Your task to perform on an android device: turn on notifications settings in the gmail app Image 0: 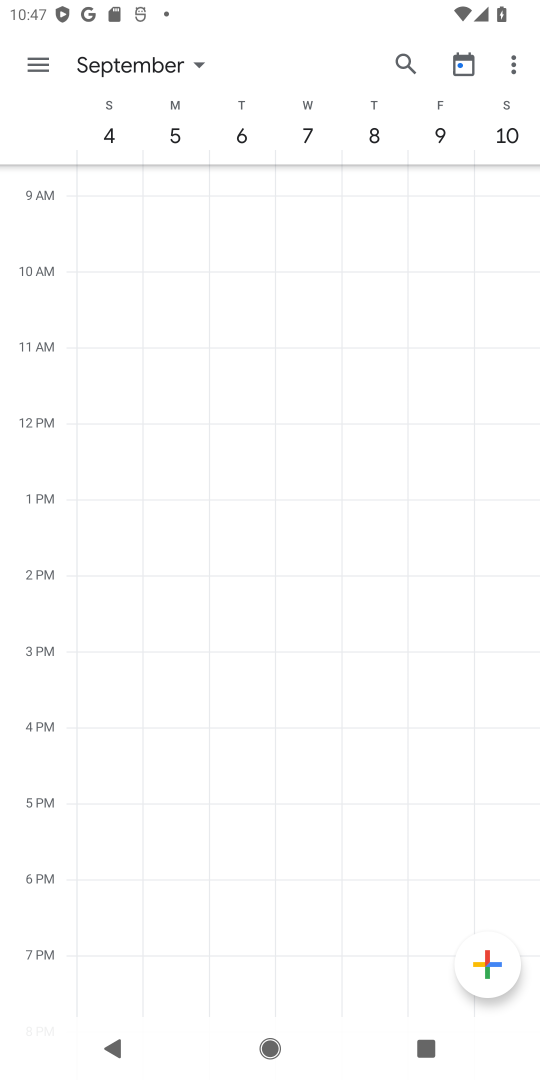
Step 0: press home button
Your task to perform on an android device: turn on notifications settings in the gmail app Image 1: 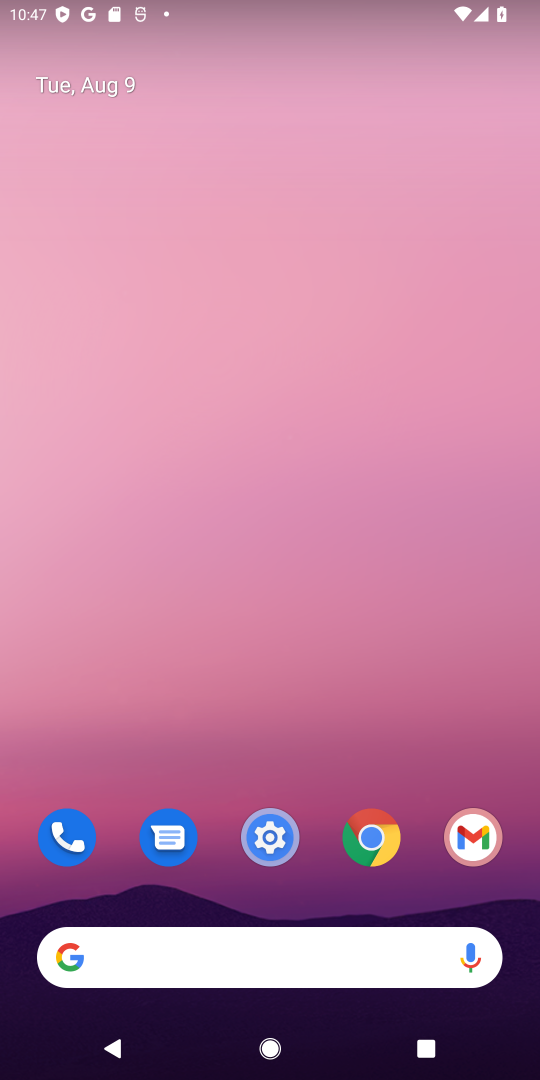
Step 1: drag from (301, 904) to (278, 280)
Your task to perform on an android device: turn on notifications settings in the gmail app Image 2: 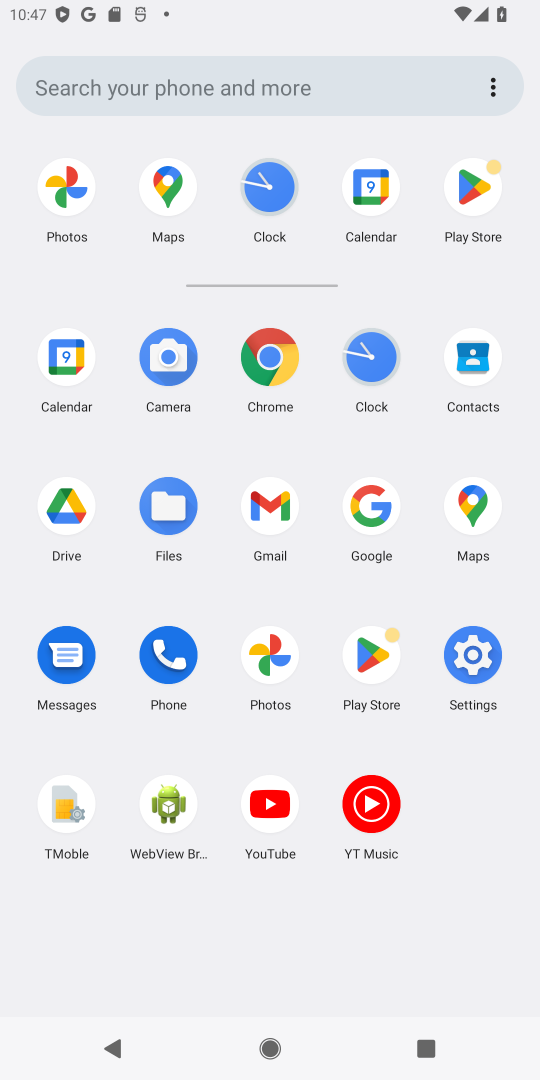
Step 2: click (264, 498)
Your task to perform on an android device: turn on notifications settings in the gmail app Image 3: 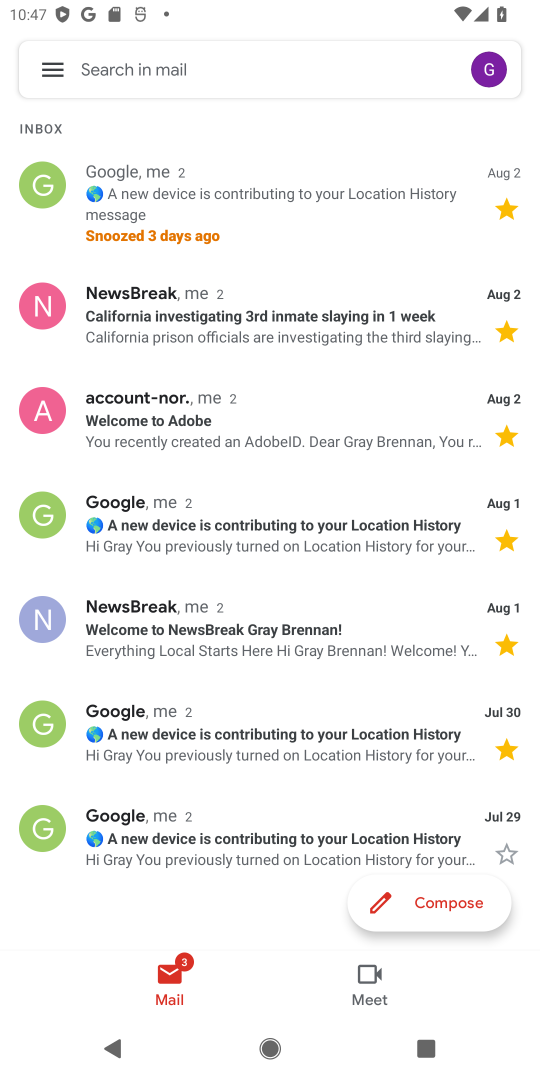
Step 3: click (57, 57)
Your task to perform on an android device: turn on notifications settings in the gmail app Image 4: 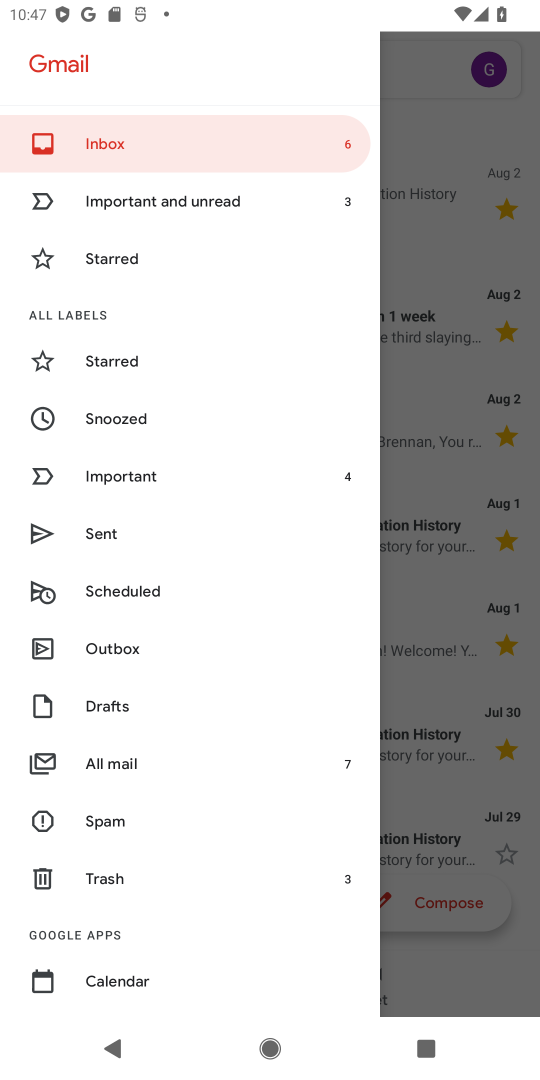
Step 4: drag from (108, 900) to (120, 603)
Your task to perform on an android device: turn on notifications settings in the gmail app Image 5: 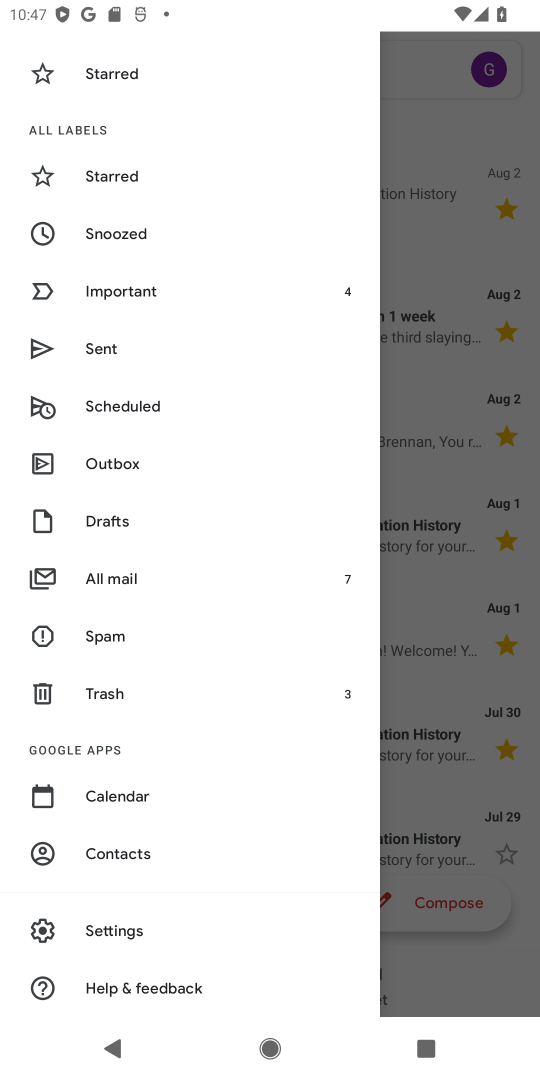
Step 5: click (92, 919)
Your task to perform on an android device: turn on notifications settings in the gmail app Image 6: 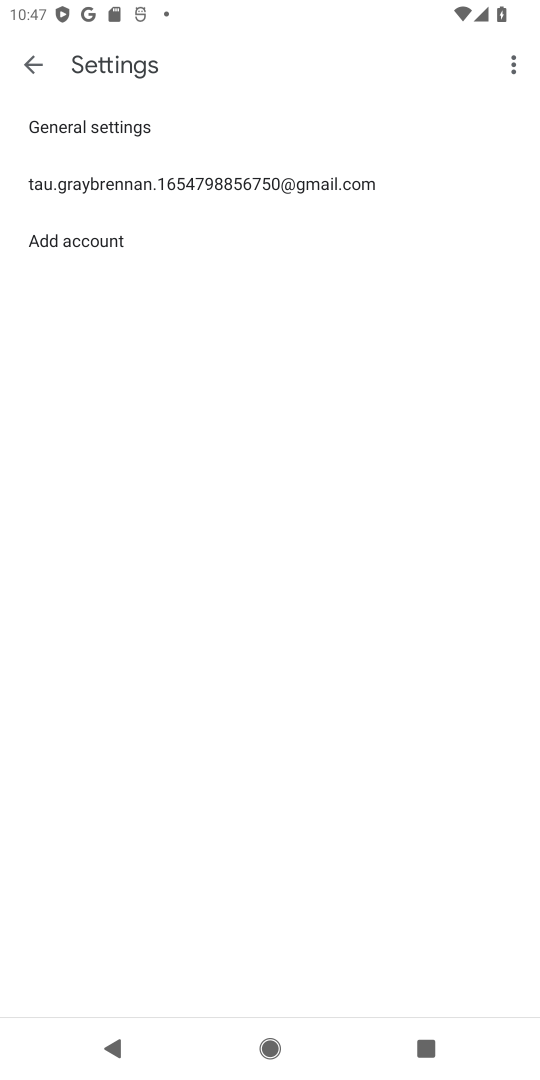
Step 6: click (223, 175)
Your task to perform on an android device: turn on notifications settings in the gmail app Image 7: 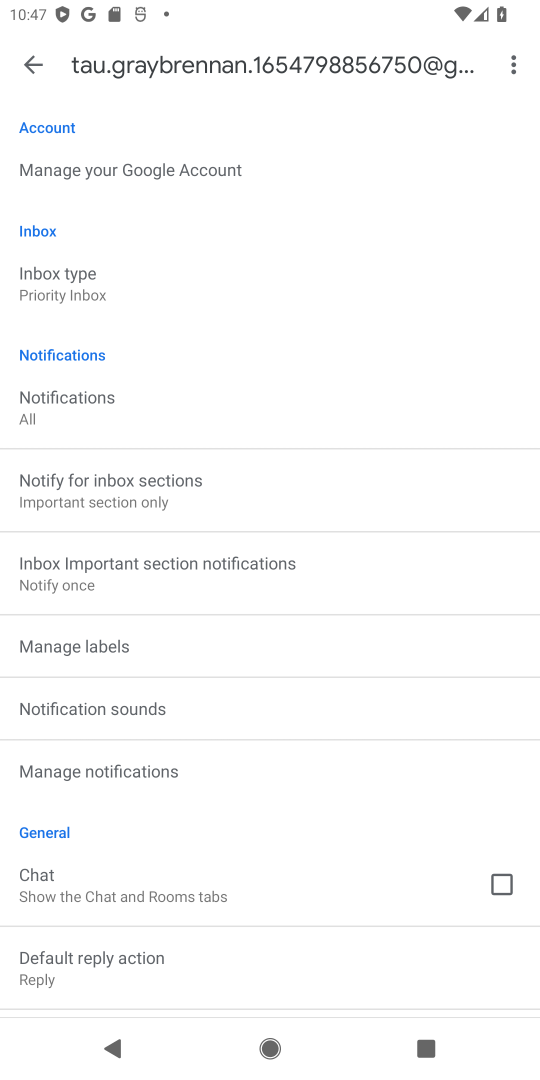
Step 7: task complete